Your task to perform on an android device: Open Google Maps and go to "Timeline" Image 0: 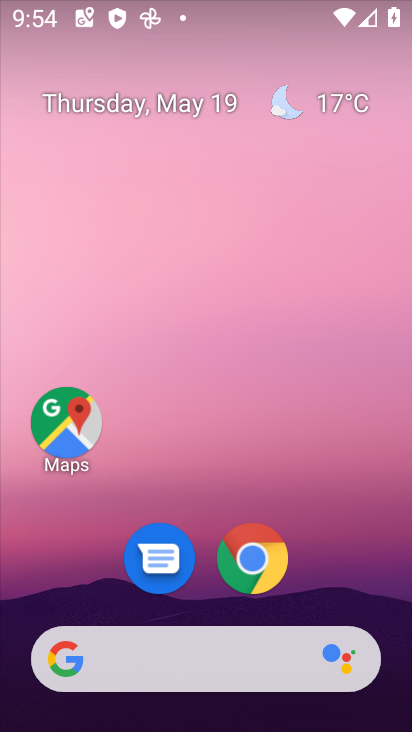
Step 0: drag from (196, 721) to (196, 77)
Your task to perform on an android device: Open Google Maps and go to "Timeline" Image 1: 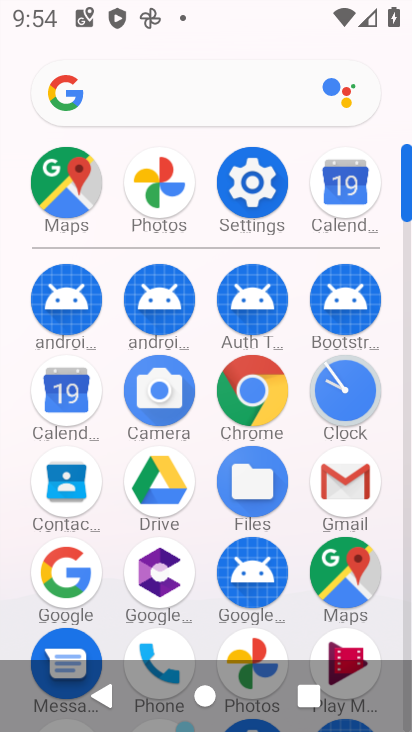
Step 1: click (344, 569)
Your task to perform on an android device: Open Google Maps and go to "Timeline" Image 2: 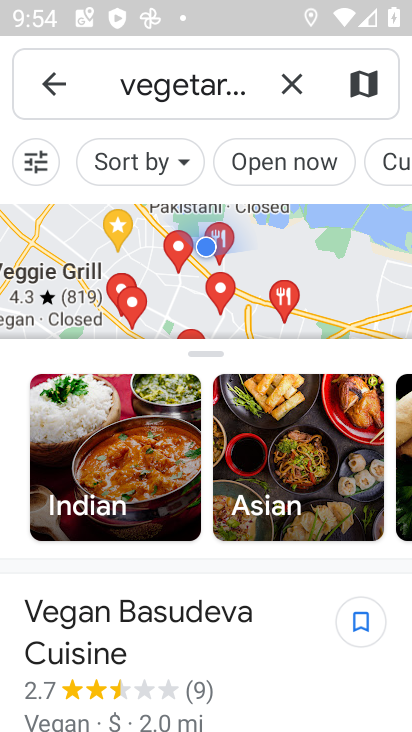
Step 2: click (51, 82)
Your task to perform on an android device: Open Google Maps and go to "Timeline" Image 3: 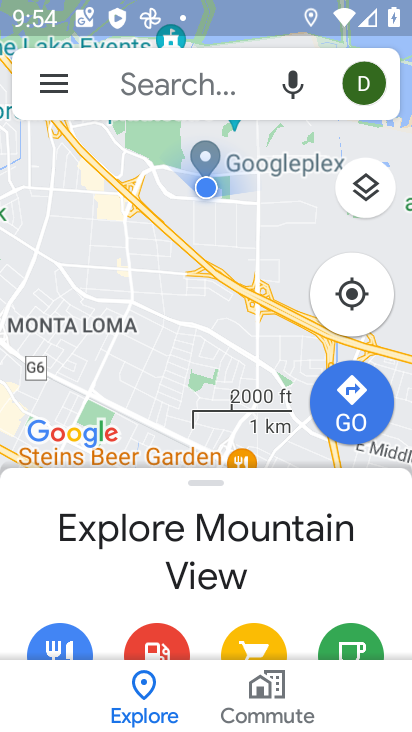
Step 3: click (51, 82)
Your task to perform on an android device: Open Google Maps and go to "Timeline" Image 4: 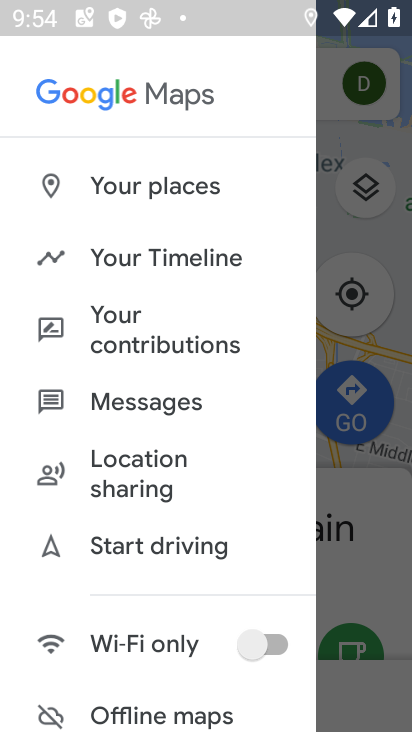
Step 4: click (145, 257)
Your task to perform on an android device: Open Google Maps and go to "Timeline" Image 5: 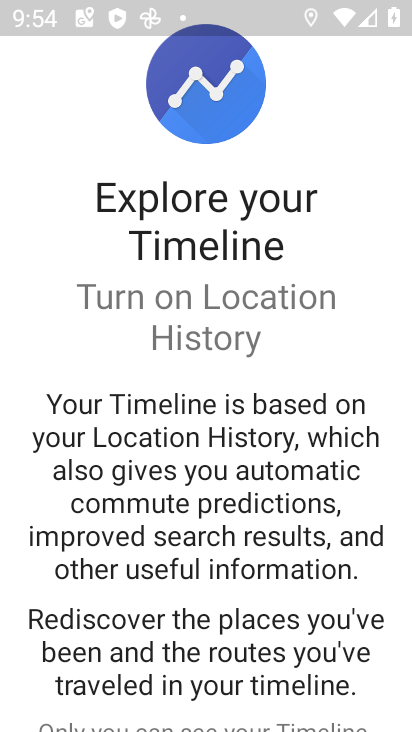
Step 5: drag from (273, 654) to (271, 304)
Your task to perform on an android device: Open Google Maps and go to "Timeline" Image 6: 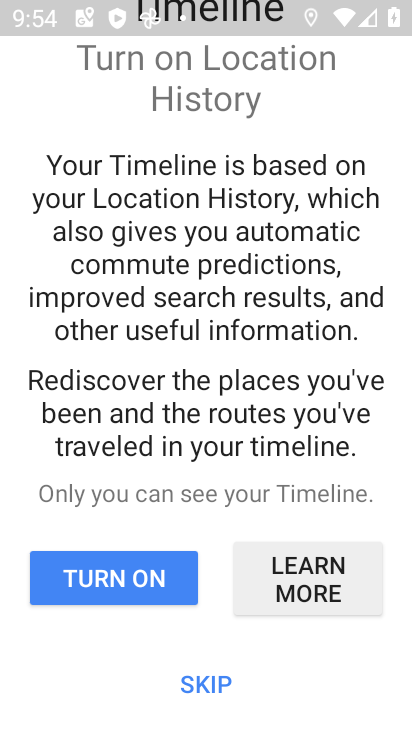
Step 6: click (216, 684)
Your task to perform on an android device: Open Google Maps and go to "Timeline" Image 7: 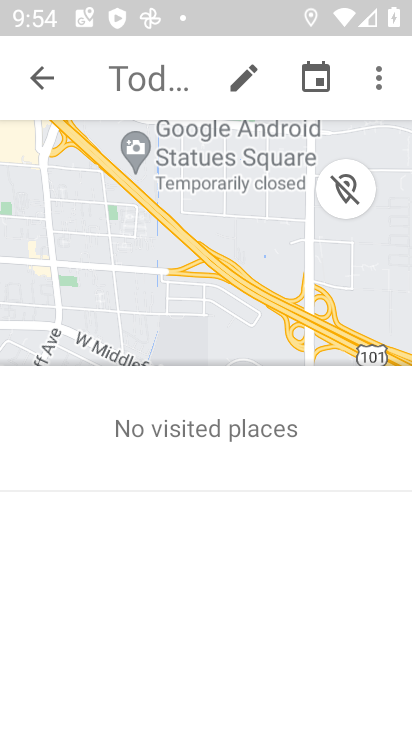
Step 7: task complete